Your task to perform on an android device: Open calendar and show me the second week of next month Image 0: 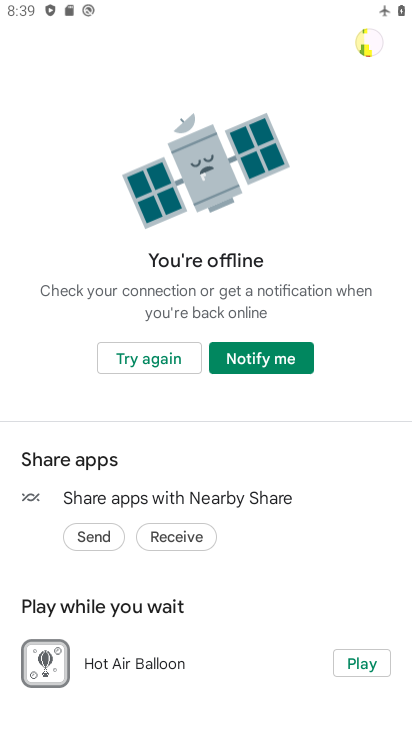
Step 0: press home button
Your task to perform on an android device: Open calendar and show me the second week of next month Image 1: 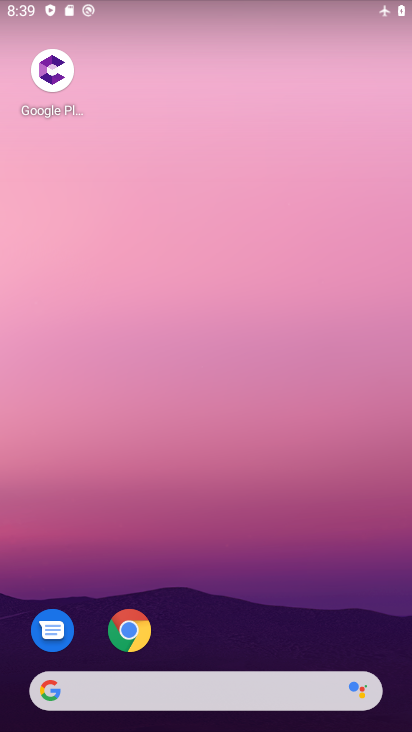
Step 1: drag from (234, 670) to (250, 314)
Your task to perform on an android device: Open calendar and show me the second week of next month Image 2: 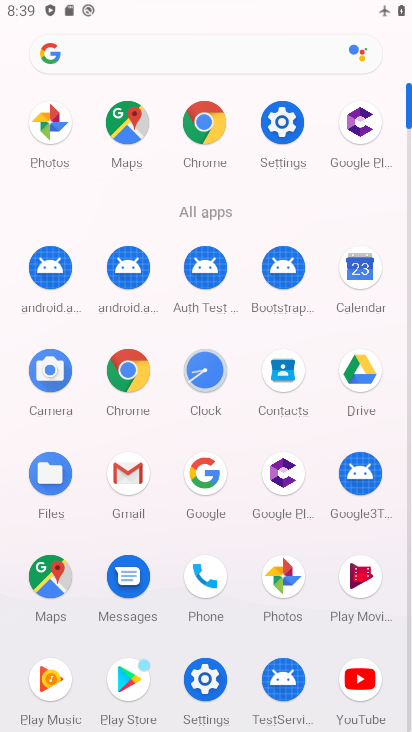
Step 2: click (354, 265)
Your task to perform on an android device: Open calendar and show me the second week of next month Image 3: 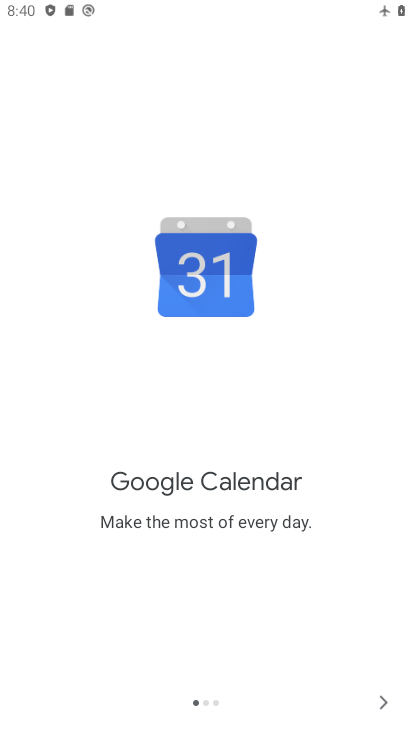
Step 3: click (382, 703)
Your task to perform on an android device: Open calendar and show me the second week of next month Image 4: 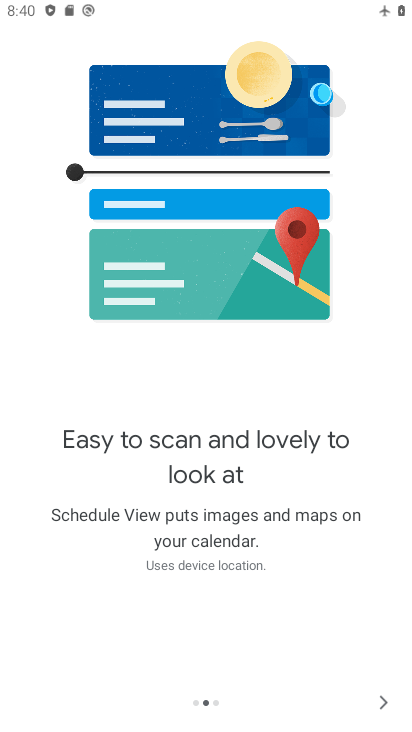
Step 4: click (382, 703)
Your task to perform on an android device: Open calendar and show me the second week of next month Image 5: 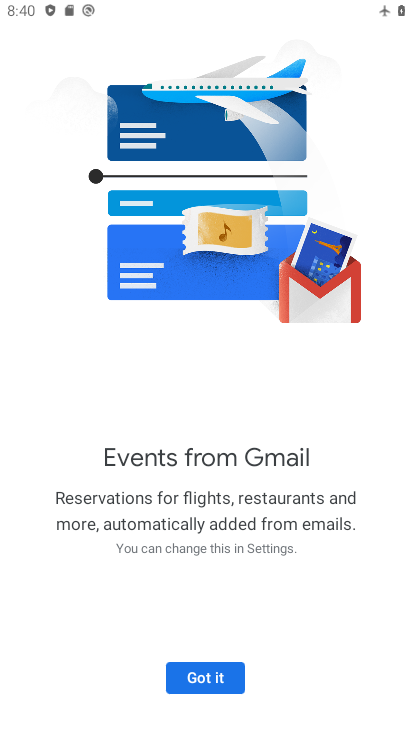
Step 5: click (382, 703)
Your task to perform on an android device: Open calendar and show me the second week of next month Image 6: 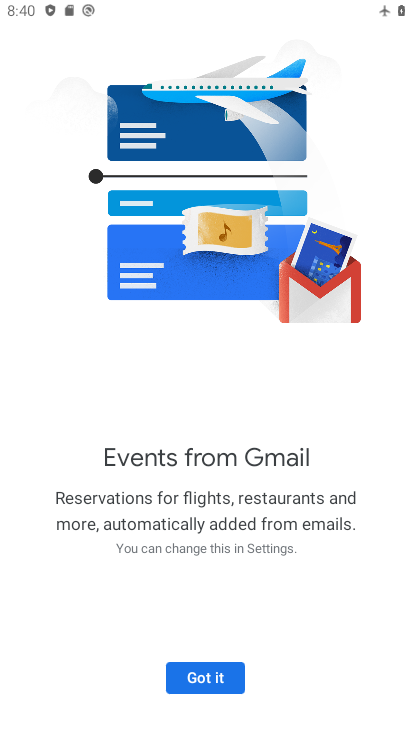
Step 6: click (382, 703)
Your task to perform on an android device: Open calendar and show me the second week of next month Image 7: 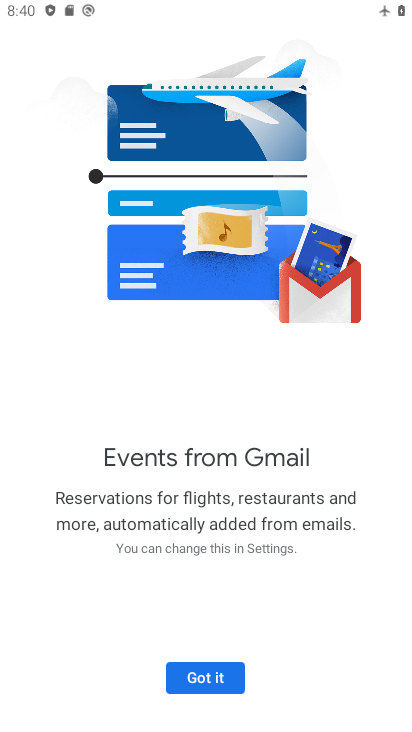
Step 7: click (271, 682)
Your task to perform on an android device: Open calendar and show me the second week of next month Image 8: 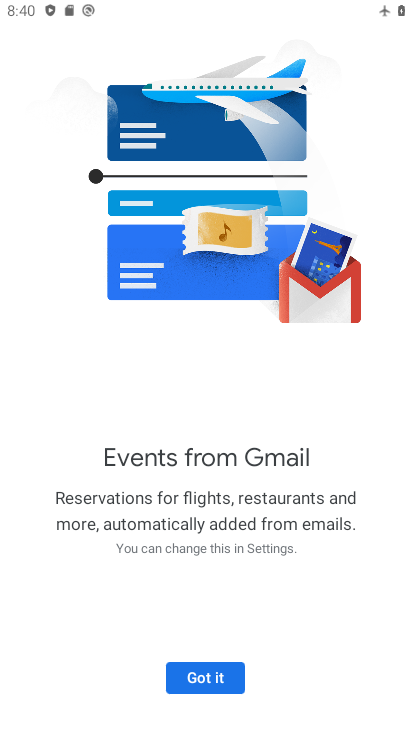
Step 8: click (221, 675)
Your task to perform on an android device: Open calendar and show me the second week of next month Image 9: 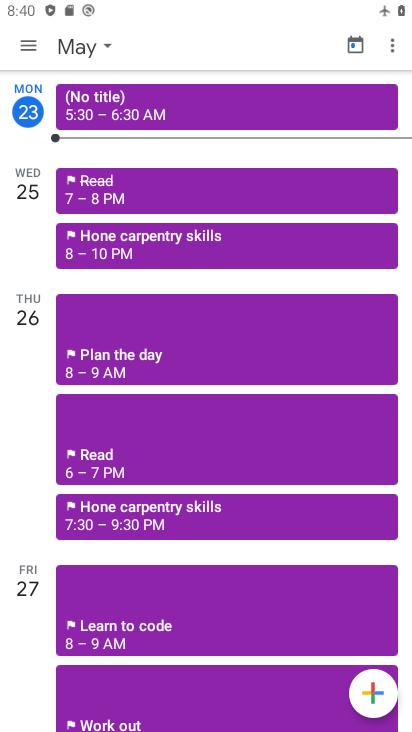
Step 9: click (225, 231)
Your task to perform on an android device: Open calendar and show me the second week of next month Image 10: 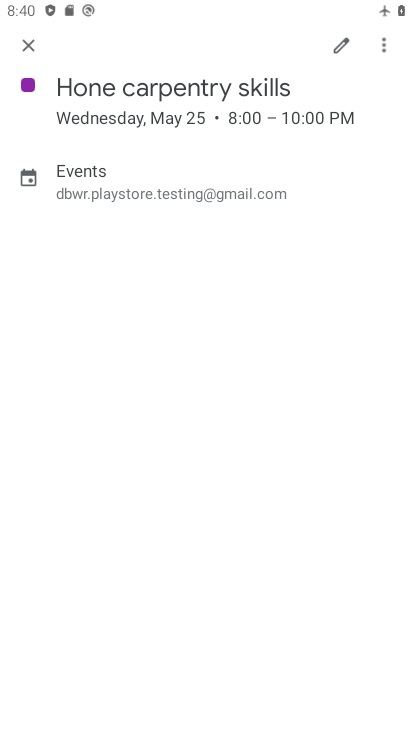
Step 10: click (75, 46)
Your task to perform on an android device: Open calendar and show me the second week of next month Image 11: 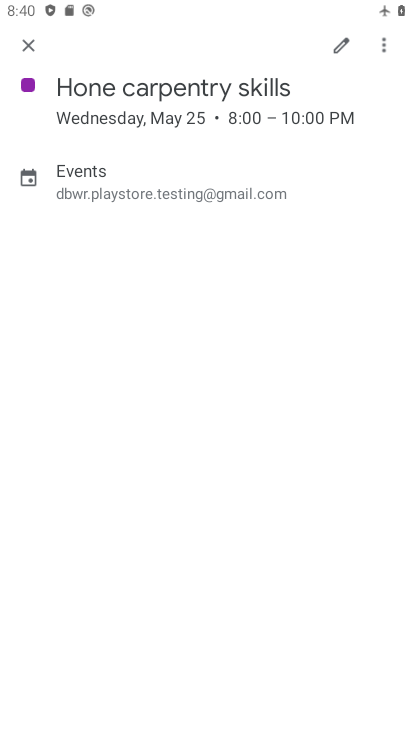
Step 11: click (31, 58)
Your task to perform on an android device: Open calendar and show me the second week of next month Image 12: 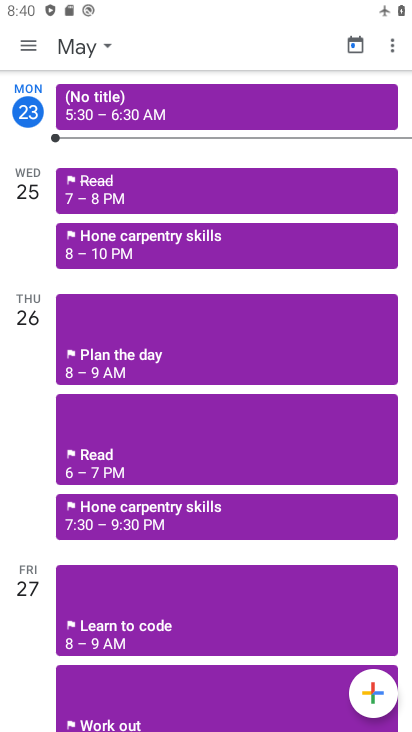
Step 12: click (86, 55)
Your task to perform on an android device: Open calendar and show me the second week of next month Image 13: 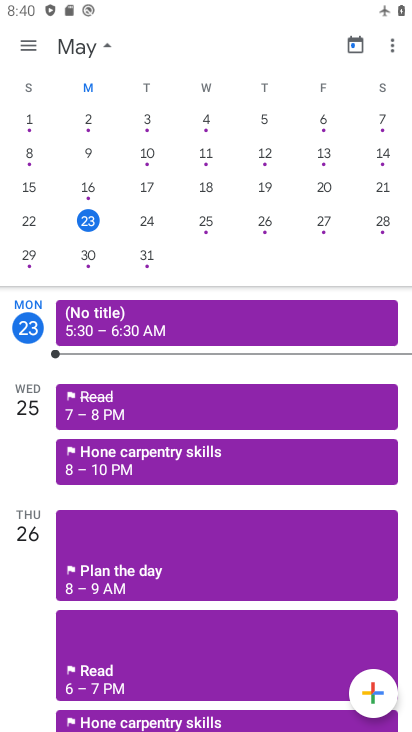
Step 13: drag from (240, 221) to (43, 200)
Your task to perform on an android device: Open calendar and show me the second week of next month Image 14: 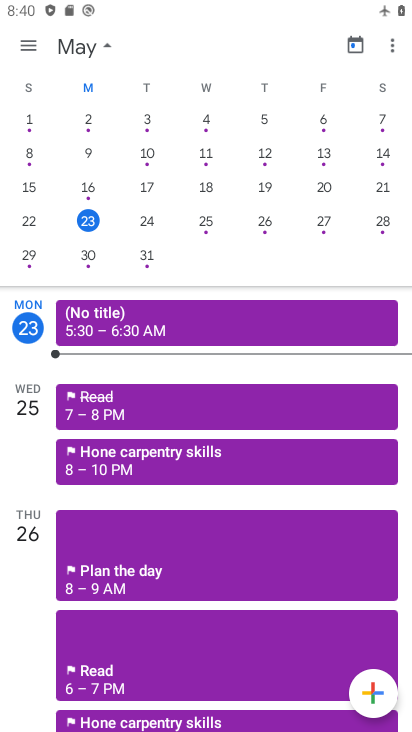
Step 14: click (229, 145)
Your task to perform on an android device: Open calendar and show me the second week of next month Image 15: 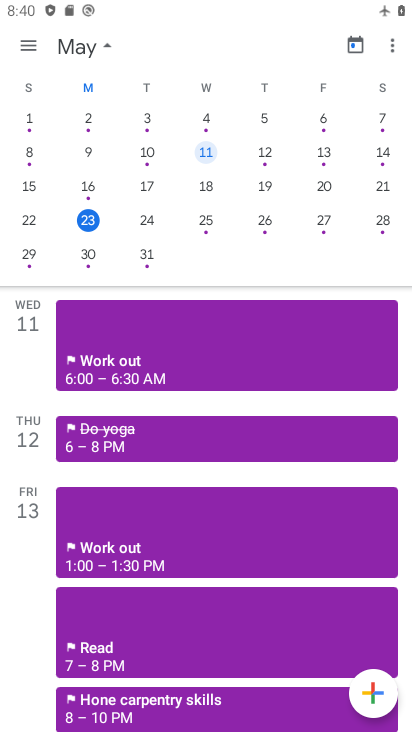
Step 15: drag from (272, 177) to (10, 175)
Your task to perform on an android device: Open calendar and show me the second week of next month Image 16: 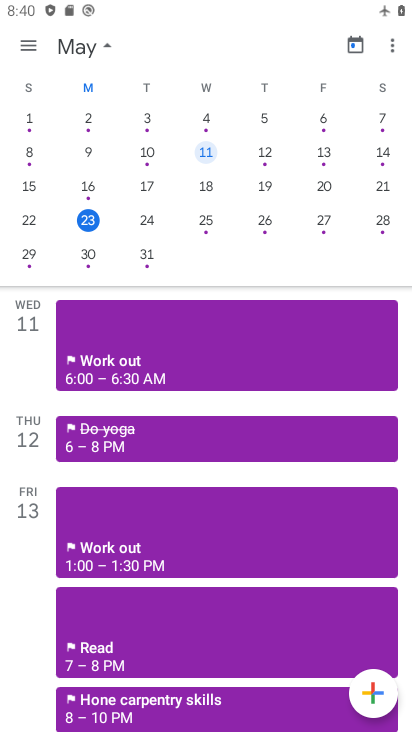
Step 16: drag from (292, 226) to (17, 241)
Your task to perform on an android device: Open calendar and show me the second week of next month Image 17: 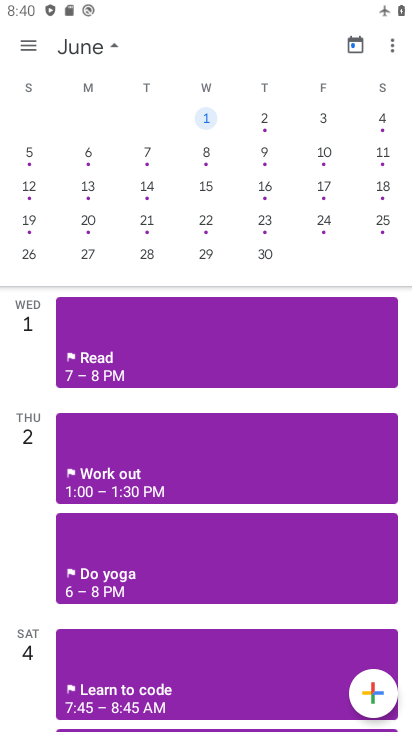
Step 17: click (31, 159)
Your task to perform on an android device: Open calendar and show me the second week of next month Image 18: 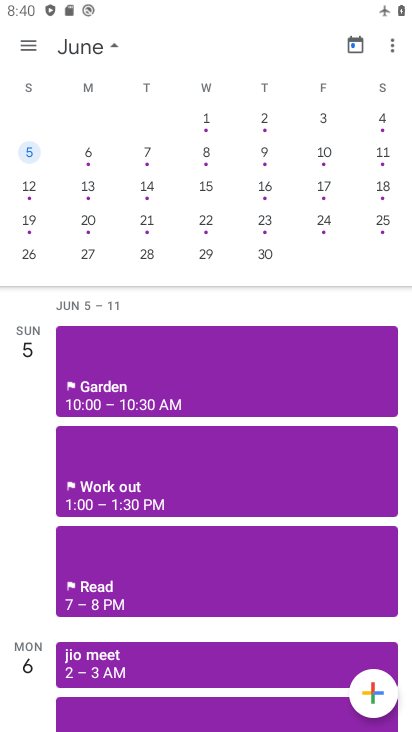
Step 18: task complete